Your task to perform on an android device: toggle airplane mode Image 0: 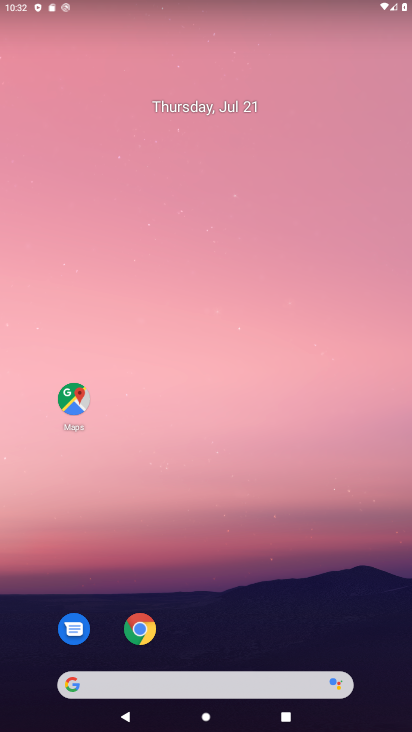
Step 0: drag from (229, 601) to (241, 56)
Your task to perform on an android device: toggle airplane mode Image 1: 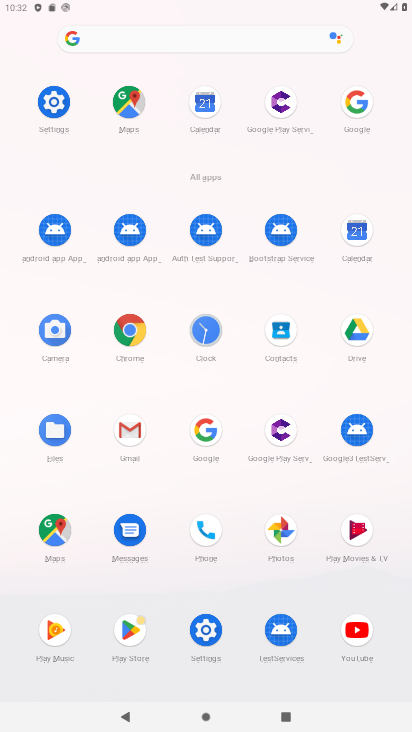
Step 1: click (52, 104)
Your task to perform on an android device: toggle airplane mode Image 2: 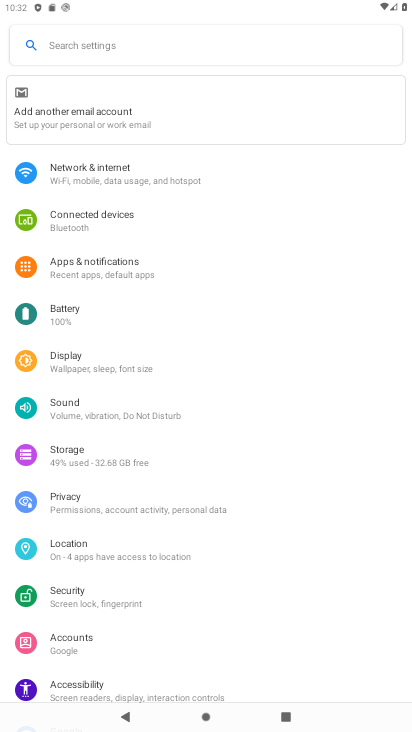
Step 2: click (129, 176)
Your task to perform on an android device: toggle airplane mode Image 3: 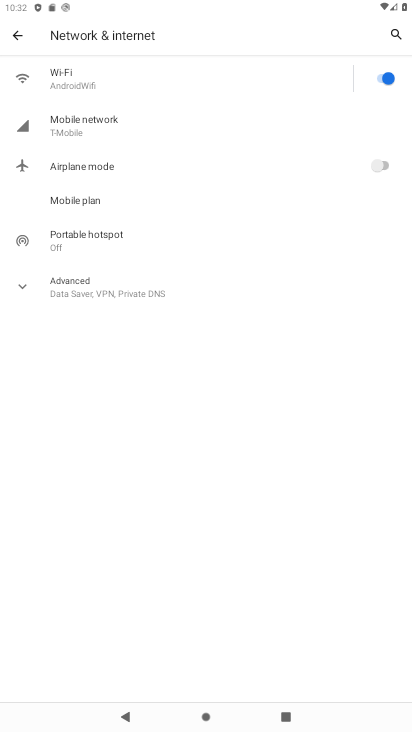
Step 3: click (370, 169)
Your task to perform on an android device: toggle airplane mode Image 4: 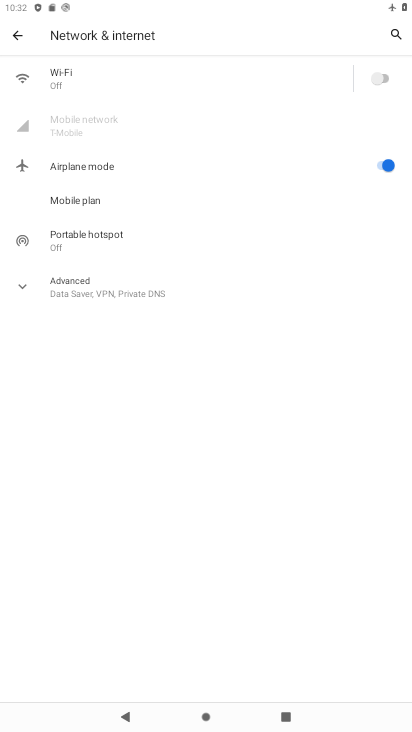
Step 4: task complete